Your task to perform on an android device: Search for the ikea billy bookcase Image 0: 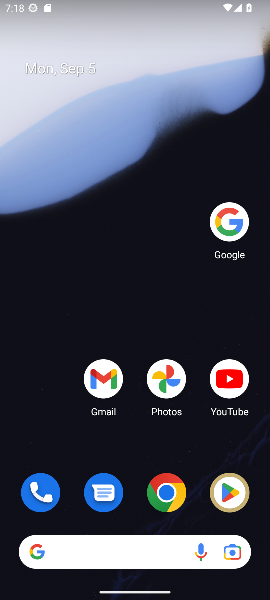
Step 0: drag from (125, 454) to (125, 205)
Your task to perform on an android device: Search for the ikea billy bookcase Image 1: 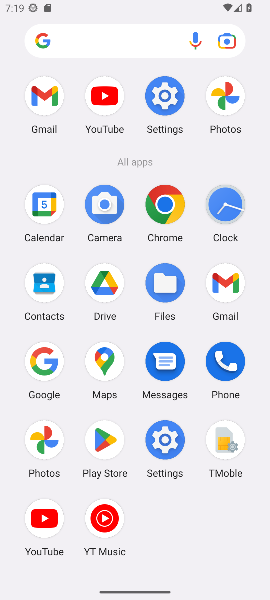
Step 1: click (45, 351)
Your task to perform on an android device: Search for the ikea billy bookcase Image 2: 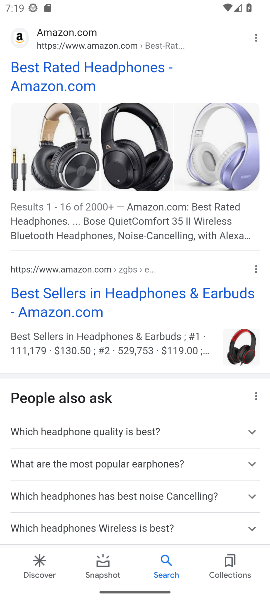
Step 2: drag from (173, 72) to (175, 488)
Your task to perform on an android device: Search for the ikea billy bookcase Image 3: 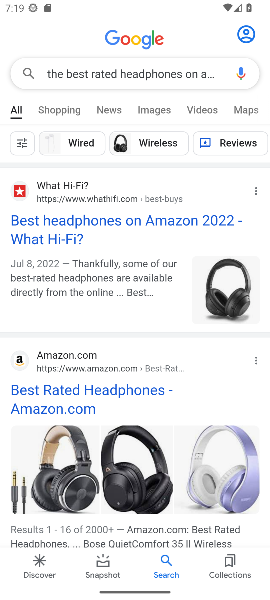
Step 3: click (172, 73)
Your task to perform on an android device: Search for the ikea billy bookcase Image 4: 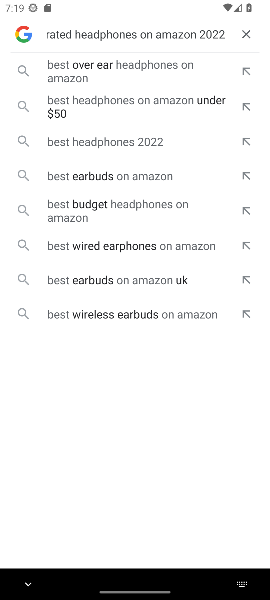
Step 4: click (252, 28)
Your task to perform on an android device: Search for the ikea billy bookcase Image 5: 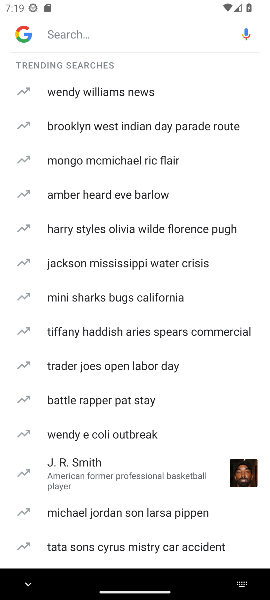
Step 5: click (180, 28)
Your task to perform on an android device: Search for the ikea billy bookcase Image 6: 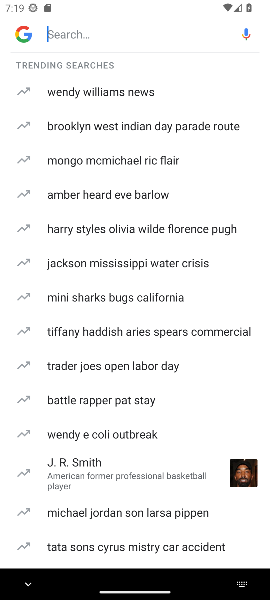
Step 6: type "the ikea billy bookcase "
Your task to perform on an android device: Search for the ikea billy bookcase Image 7: 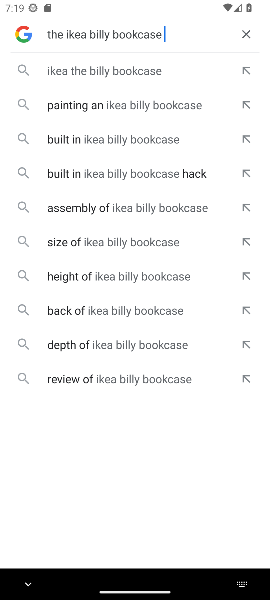
Step 7: click (108, 63)
Your task to perform on an android device: Search for the ikea billy bookcase Image 8: 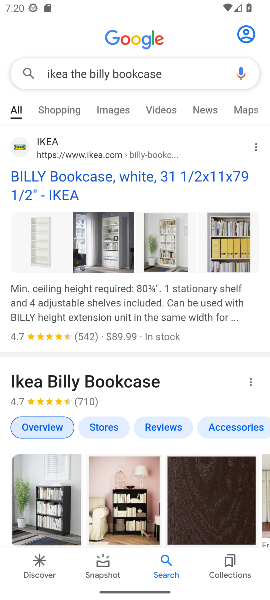
Step 8: task complete